Your task to perform on an android device: open chrome and create a bookmark for the current page Image 0: 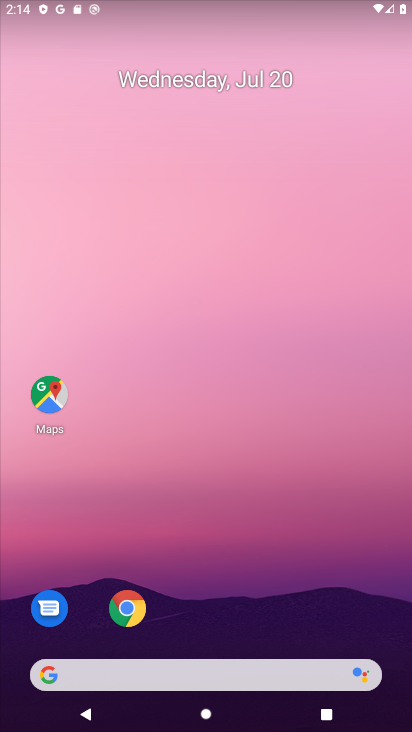
Step 0: click (131, 607)
Your task to perform on an android device: open chrome and create a bookmark for the current page Image 1: 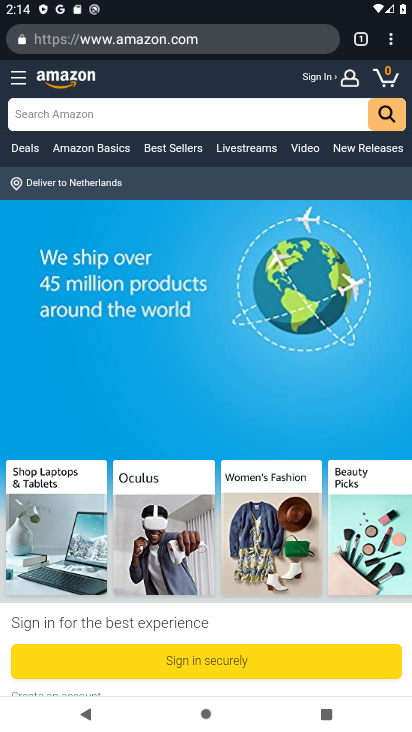
Step 1: click (393, 39)
Your task to perform on an android device: open chrome and create a bookmark for the current page Image 2: 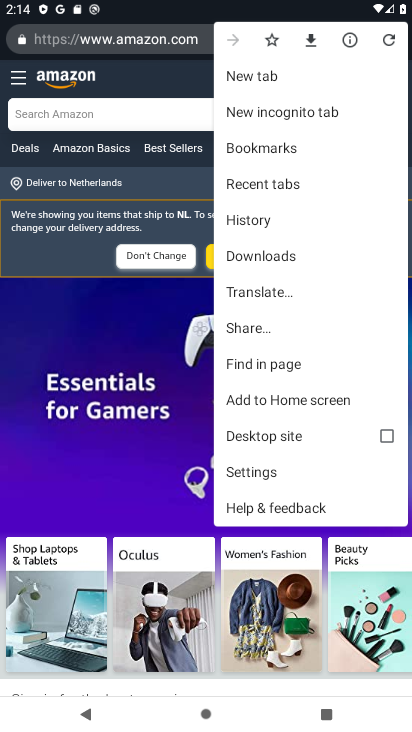
Step 2: click (289, 152)
Your task to perform on an android device: open chrome and create a bookmark for the current page Image 3: 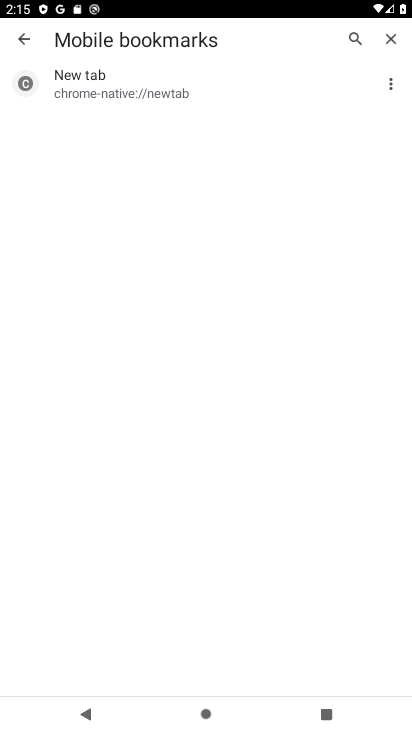
Step 3: click (392, 85)
Your task to perform on an android device: open chrome and create a bookmark for the current page Image 4: 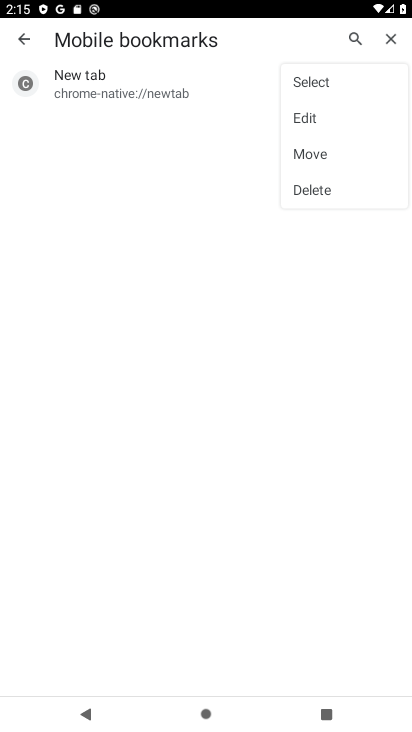
Step 4: click (308, 185)
Your task to perform on an android device: open chrome and create a bookmark for the current page Image 5: 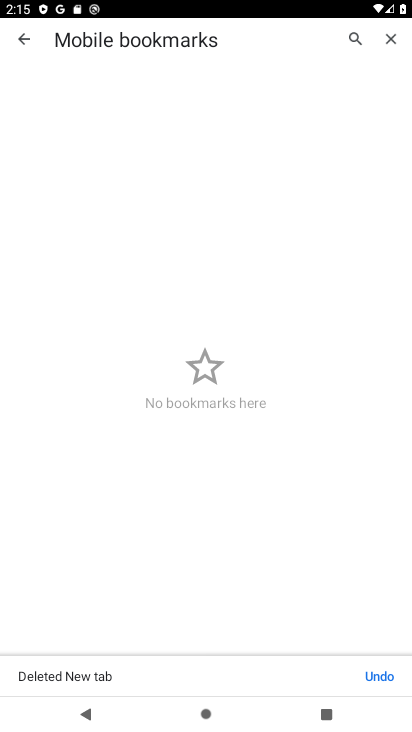
Step 5: task complete